Your task to perform on an android device: allow notifications from all sites in the chrome app Image 0: 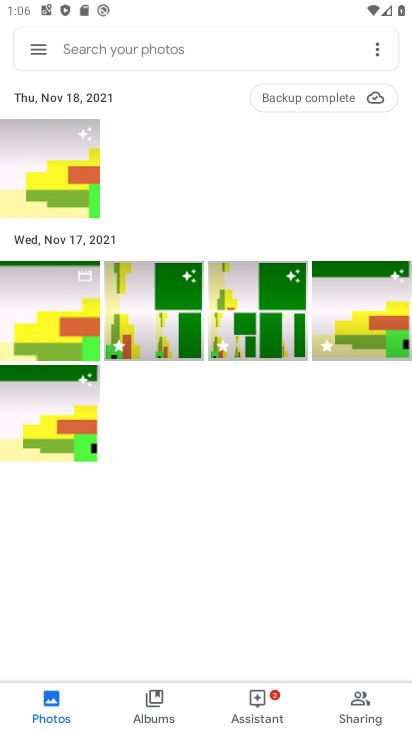
Step 0: press back button
Your task to perform on an android device: allow notifications from all sites in the chrome app Image 1: 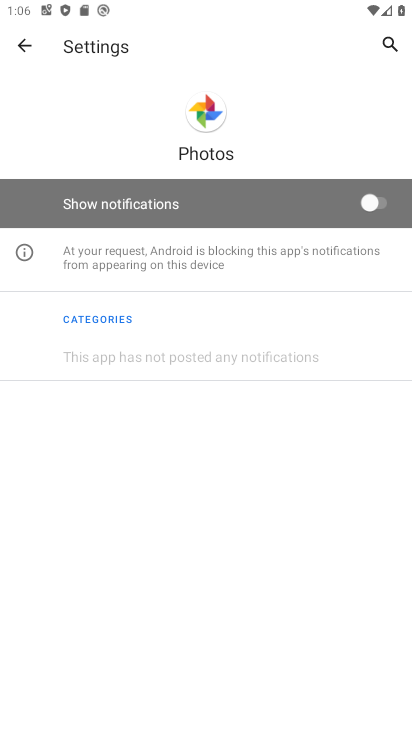
Step 1: press back button
Your task to perform on an android device: allow notifications from all sites in the chrome app Image 2: 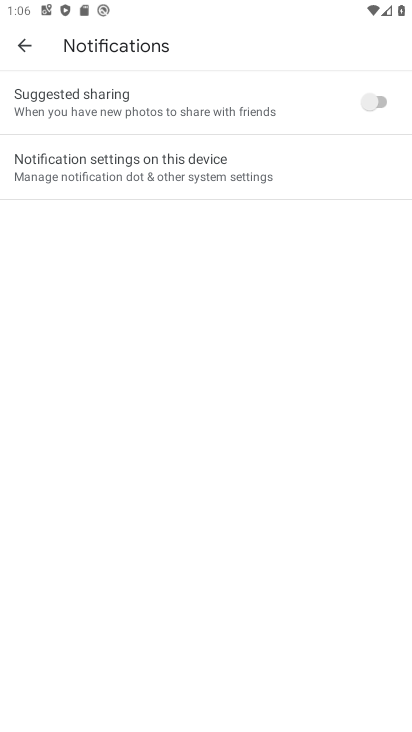
Step 2: click (20, 41)
Your task to perform on an android device: allow notifications from all sites in the chrome app Image 3: 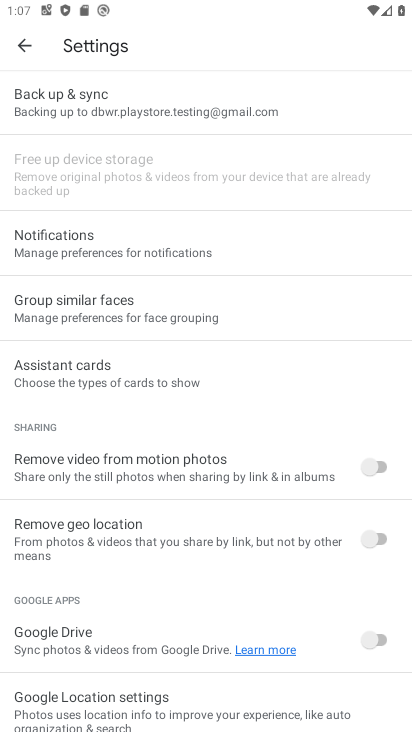
Step 3: click (61, 230)
Your task to perform on an android device: allow notifications from all sites in the chrome app Image 4: 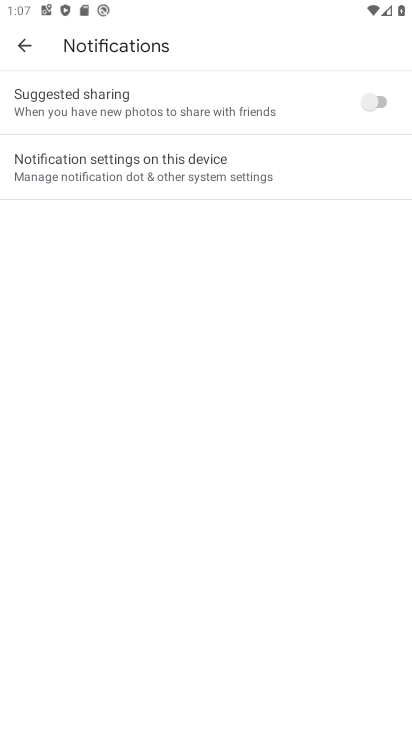
Step 4: click (99, 169)
Your task to perform on an android device: allow notifications from all sites in the chrome app Image 5: 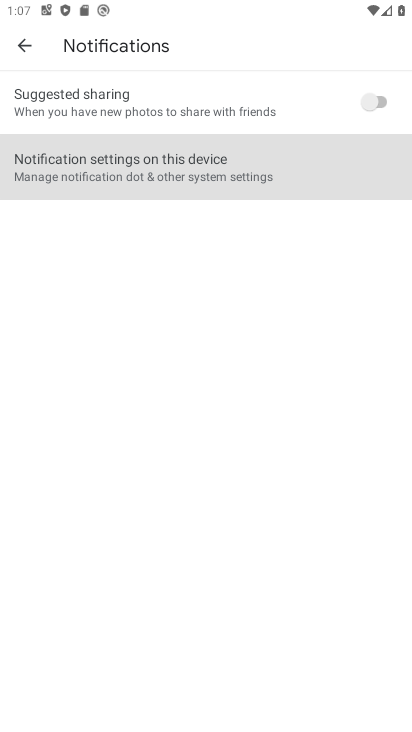
Step 5: click (99, 169)
Your task to perform on an android device: allow notifications from all sites in the chrome app Image 6: 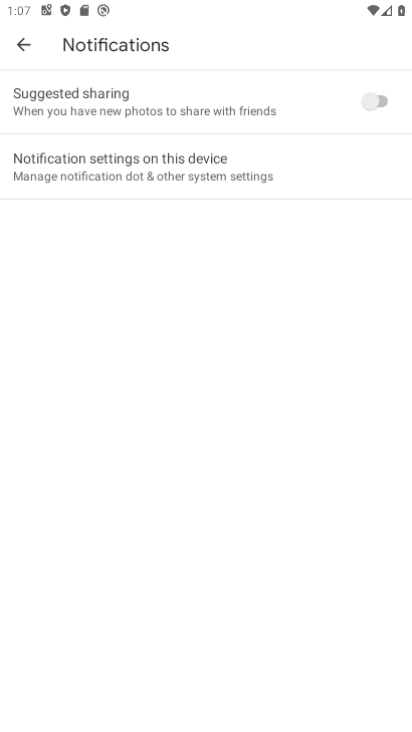
Step 6: click (98, 169)
Your task to perform on an android device: allow notifications from all sites in the chrome app Image 7: 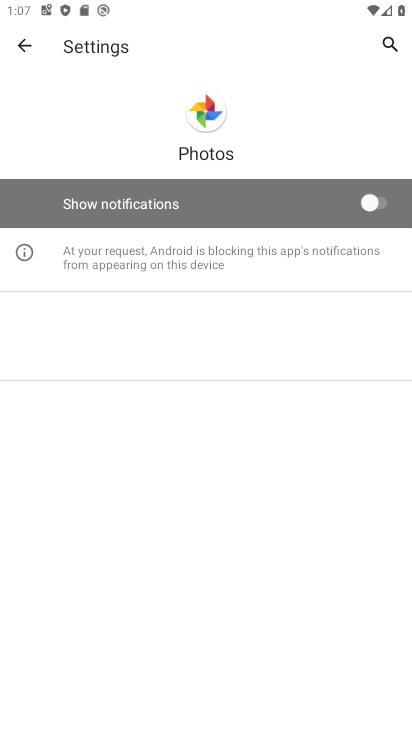
Step 7: click (97, 175)
Your task to perform on an android device: allow notifications from all sites in the chrome app Image 8: 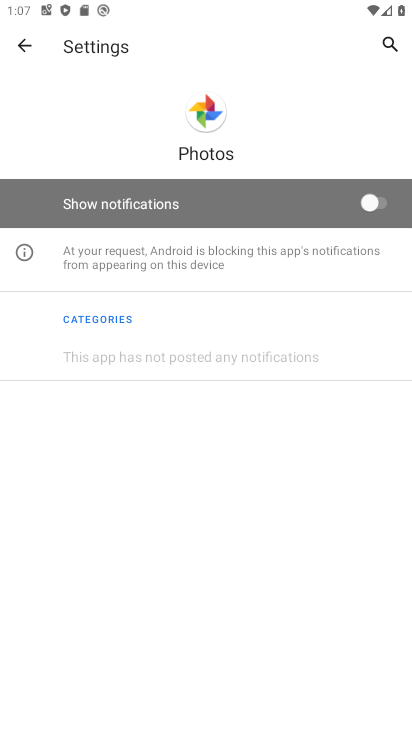
Step 8: click (98, 176)
Your task to perform on an android device: allow notifications from all sites in the chrome app Image 9: 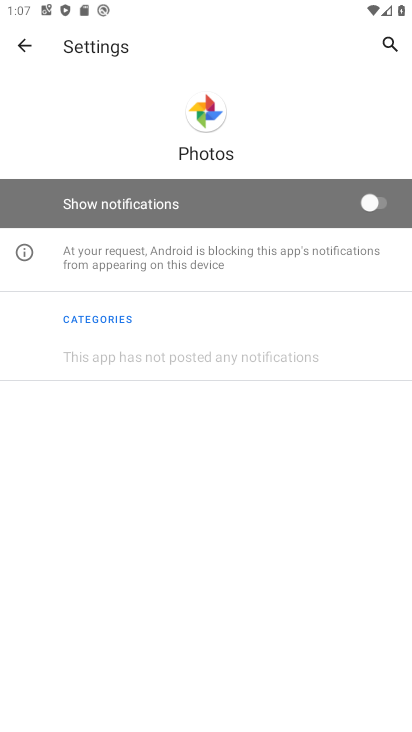
Step 9: click (98, 177)
Your task to perform on an android device: allow notifications from all sites in the chrome app Image 10: 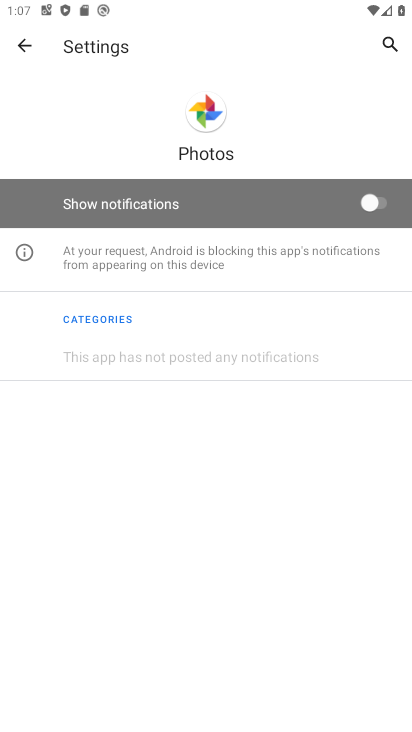
Step 10: click (88, 191)
Your task to perform on an android device: allow notifications from all sites in the chrome app Image 11: 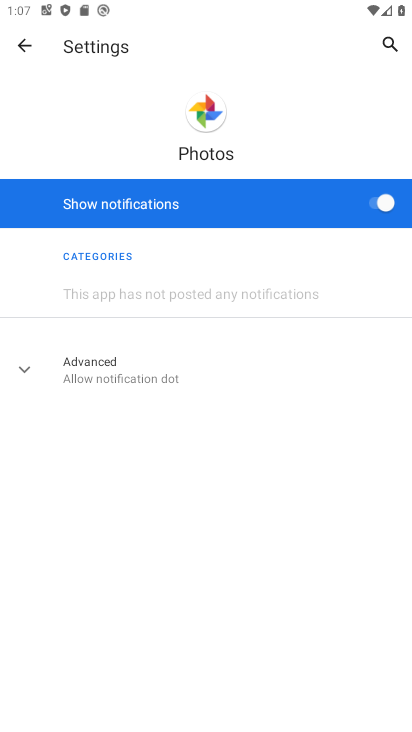
Step 11: click (374, 207)
Your task to perform on an android device: allow notifications from all sites in the chrome app Image 12: 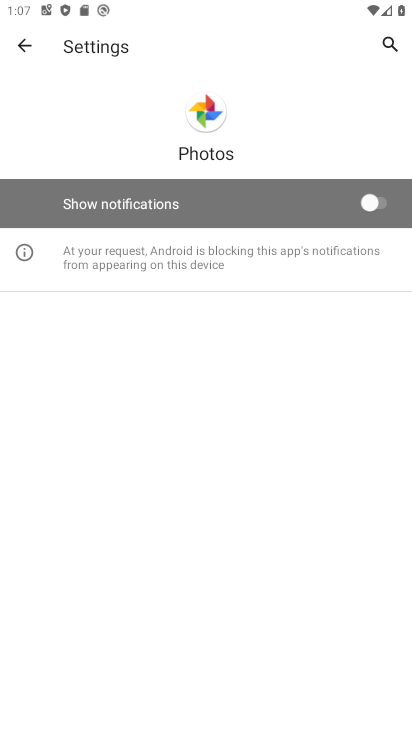
Step 12: click (383, 197)
Your task to perform on an android device: allow notifications from all sites in the chrome app Image 13: 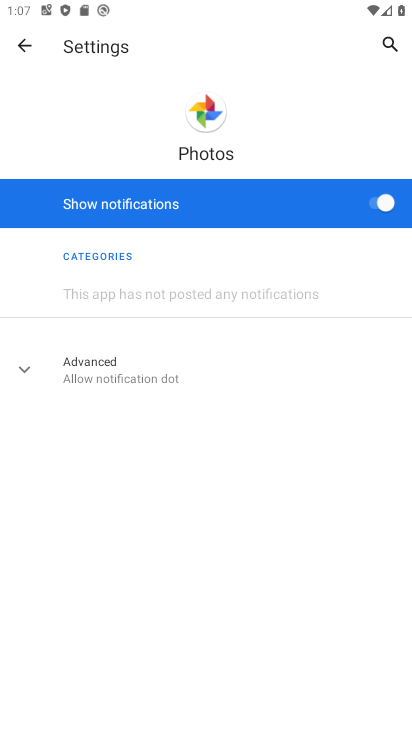
Step 13: click (379, 201)
Your task to perform on an android device: allow notifications from all sites in the chrome app Image 14: 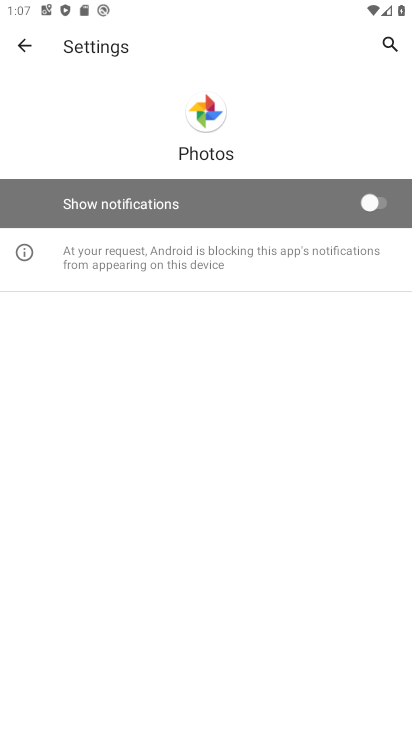
Step 14: task complete